Your task to perform on an android device: check google app version Image 0: 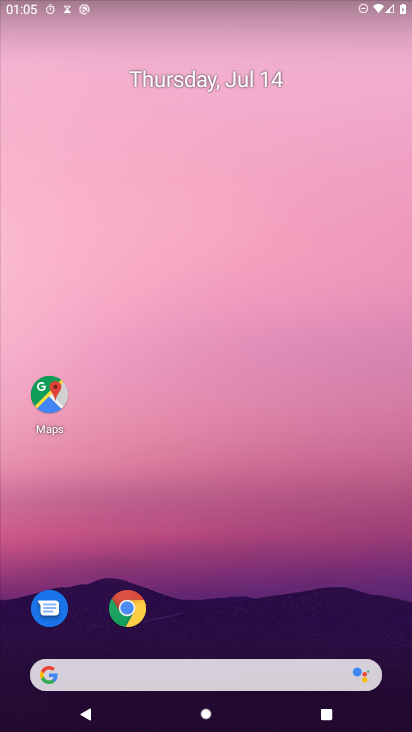
Step 0: press home button
Your task to perform on an android device: check google app version Image 1: 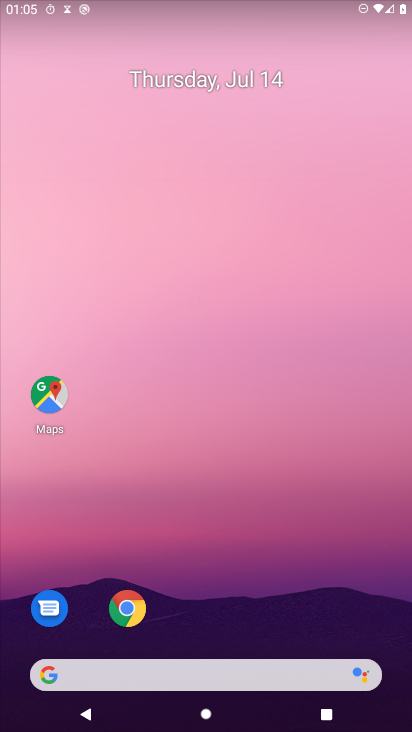
Step 1: drag from (303, 402) to (346, 63)
Your task to perform on an android device: check google app version Image 2: 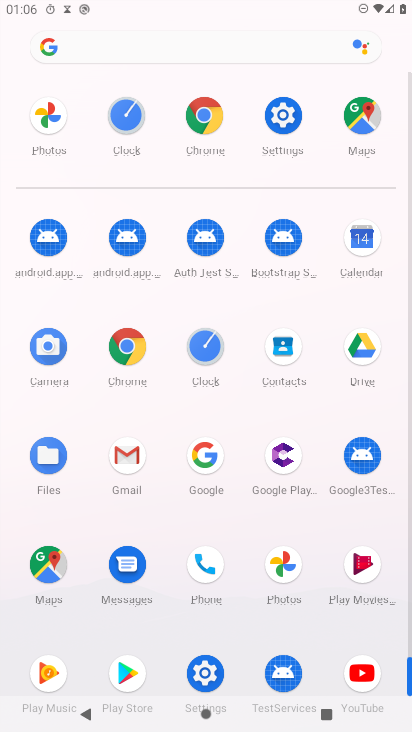
Step 2: click (200, 461)
Your task to perform on an android device: check google app version Image 3: 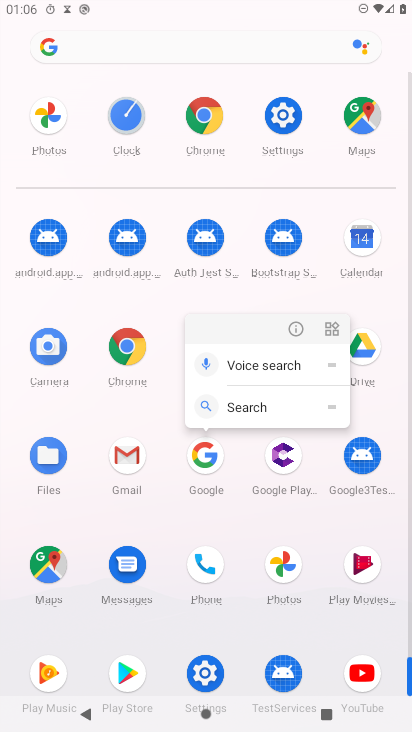
Step 3: click (295, 327)
Your task to perform on an android device: check google app version Image 4: 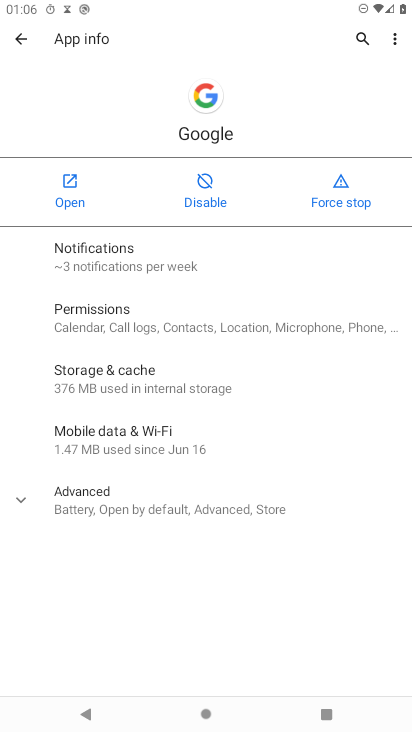
Step 4: click (25, 497)
Your task to perform on an android device: check google app version Image 5: 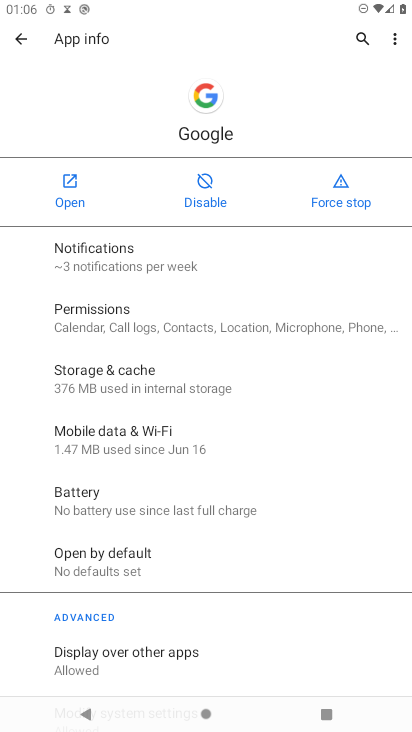
Step 5: task complete